Your task to perform on an android device: toggle airplane mode Image 0: 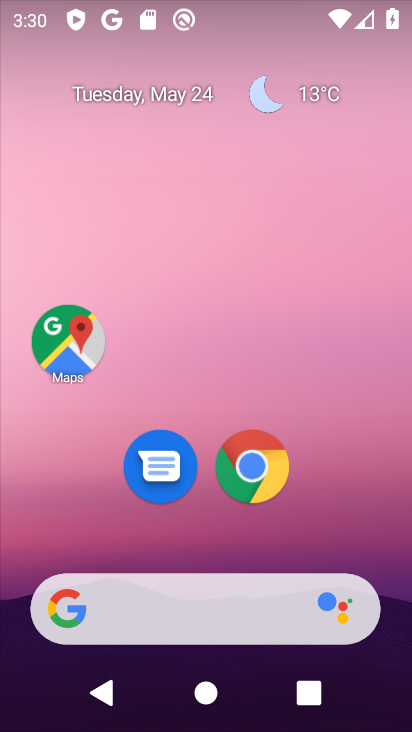
Step 0: drag from (349, 472) to (315, 162)
Your task to perform on an android device: toggle airplane mode Image 1: 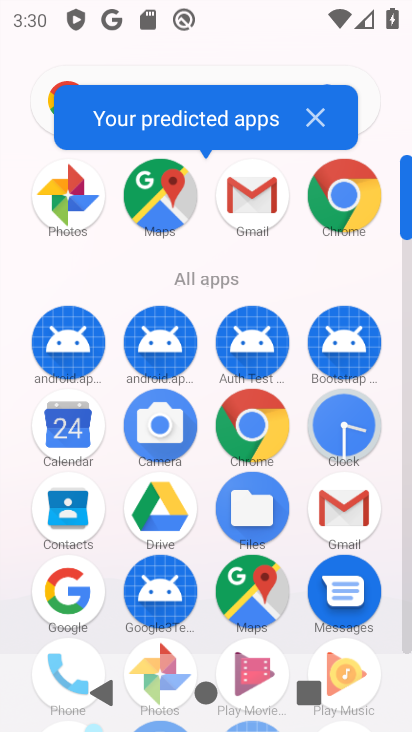
Step 1: drag from (201, 585) to (231, 203)
Your task to perform on an android device: toggle airplane mode Image 2: 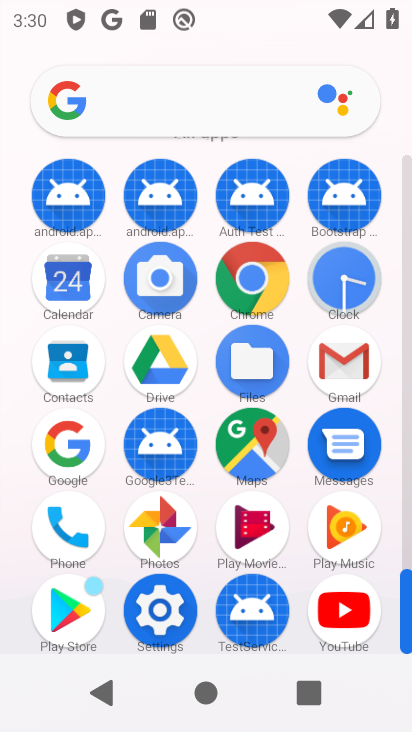
Step 2: click (171, 605)
Your task to perform on an android device: toggle airplane mode Image 3: 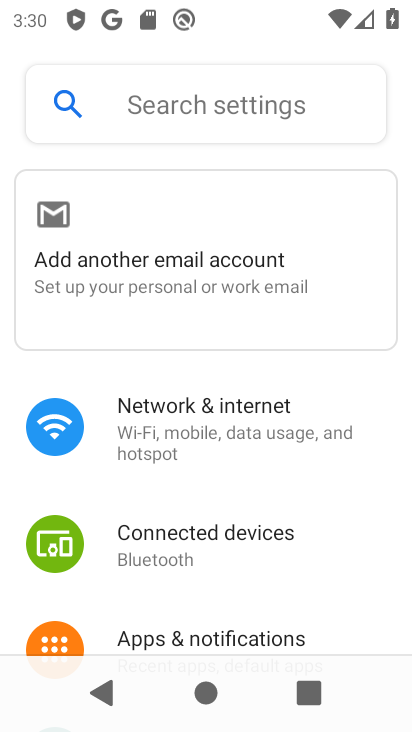
Step 3: click (213, 394)
Your task to perform on an android device: toggle airplane mode Image 4: 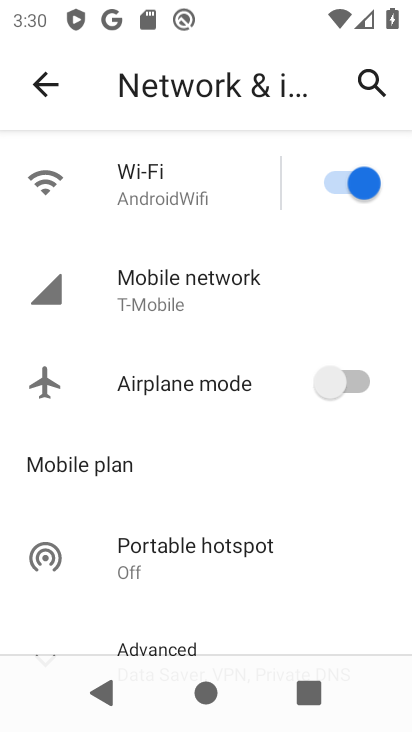
Step 4: click (341, 377)
Your task to perform on an android device: toggle airplane mode Image 5: 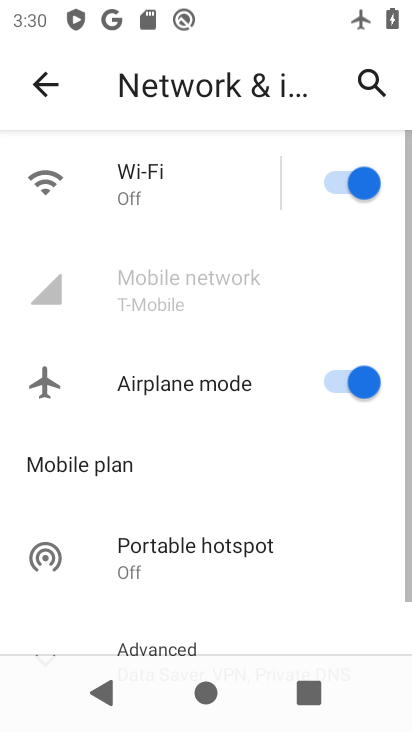
Step 5: task complete